Your task to perform on an android device: manage bookmarks in the chrome app Image 0: 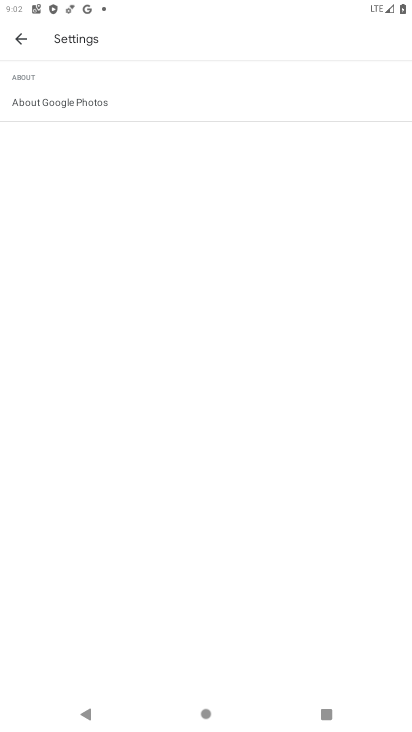
Step 0: press home button
Your task to perform on an android device: manage bookmarks in the chrome app Image 1: 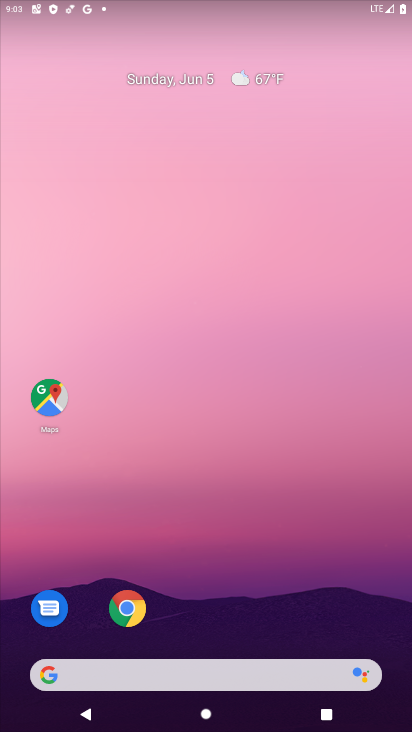
Step 1: click (120, 608)
Your task to perform on an android device: manage bookmarks in the chrome app Image 2: 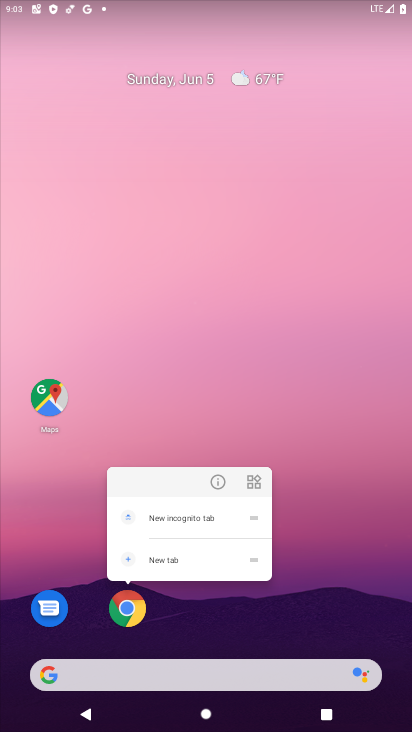
Step 2: click (135, 618)
Your task to perform on an android device: manage bookmarks in the chrome app Image 3: 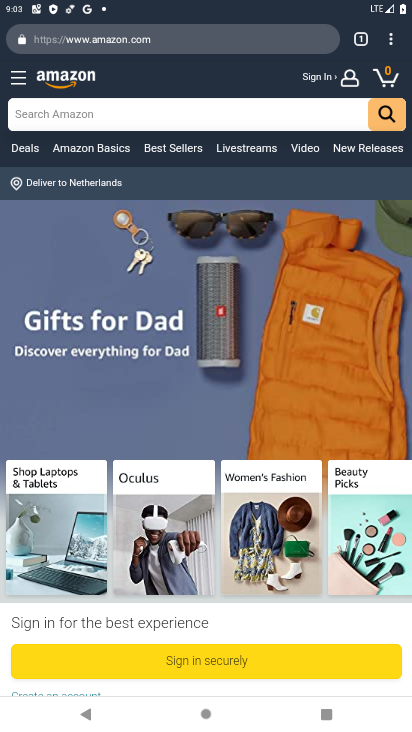
Step 3: click (355, 48)
Your task to perform on an android device: manage bookmarks in the chrome app Image 4: 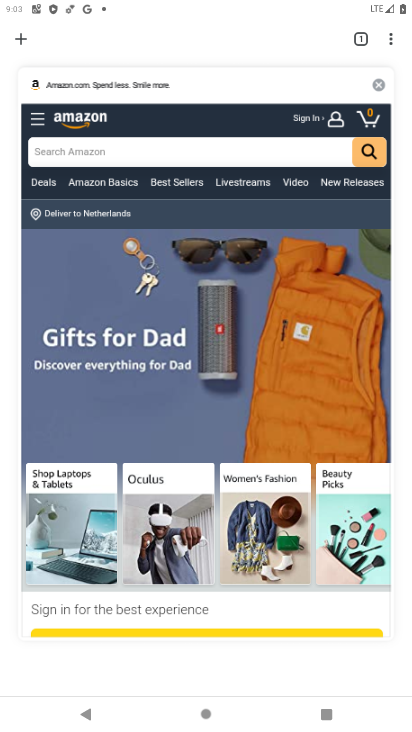
Step 4: click (385, 84)
Your task to perform on an android device: manage bookmarks in the chrome app Image 5: 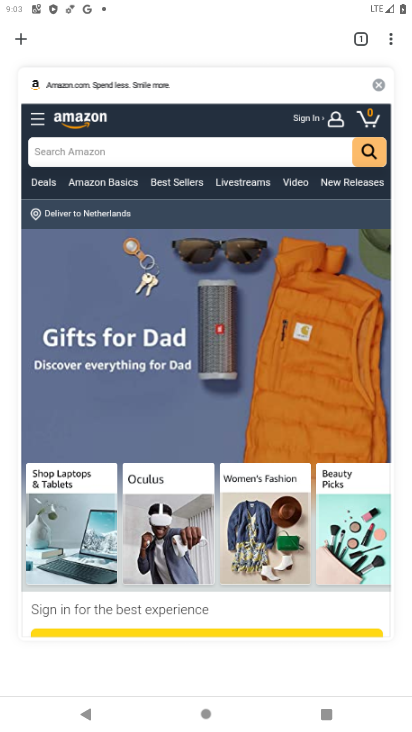
Step 5: click (376, 87)
Your task to perform on an android device: manage bookmarks in the chrome app Image 6: 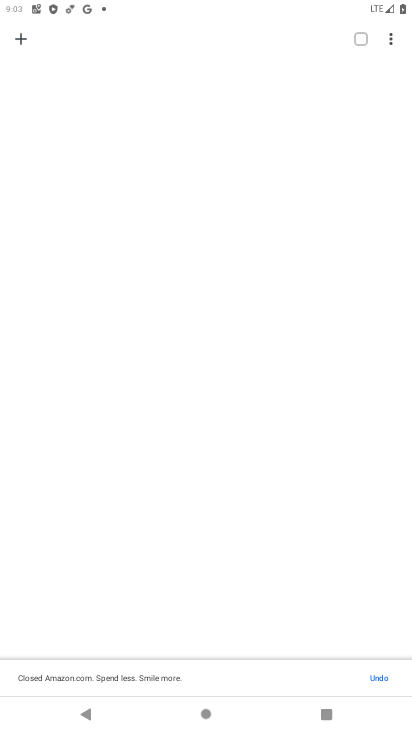
Step 6: click (19, 46)
Your task to perform on an android device: manage bookmarks in the chrome app Image 7: 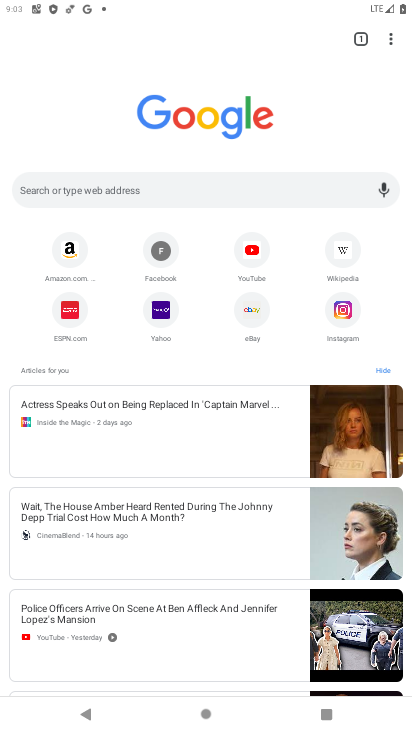
Step 7: click (391, 43)
Your task to perform on an android device: manage bookmarks in the chrome app Image 8: 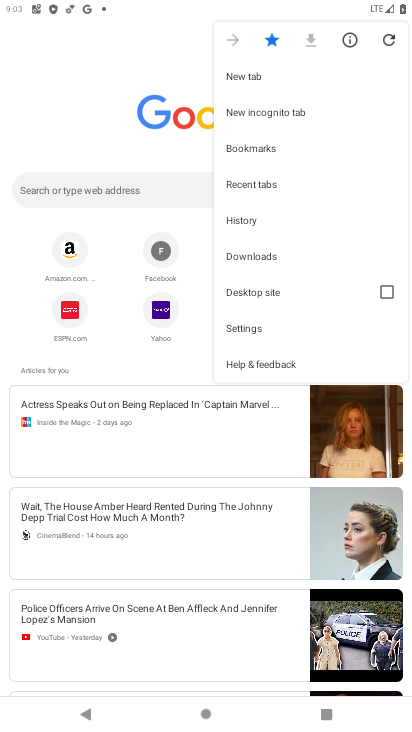
Step 8: click (237, 142)
Your task to perform on an android device: manage bookmarks in the chrome app Image 9: 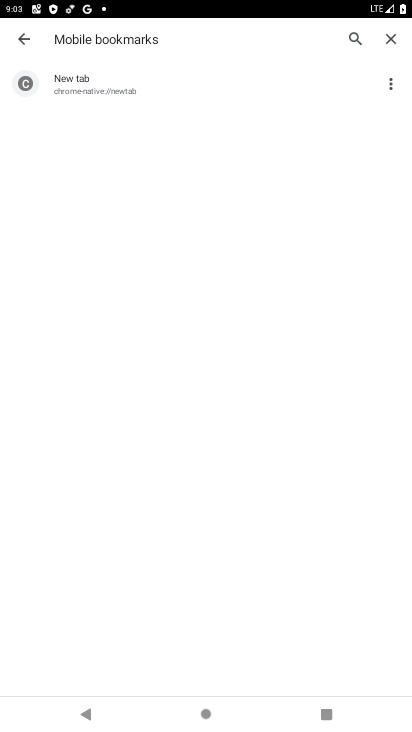
Step 9: click (199, 72)
Your task to perform on an android device: manage bookmarks in the chrome app Image 10: 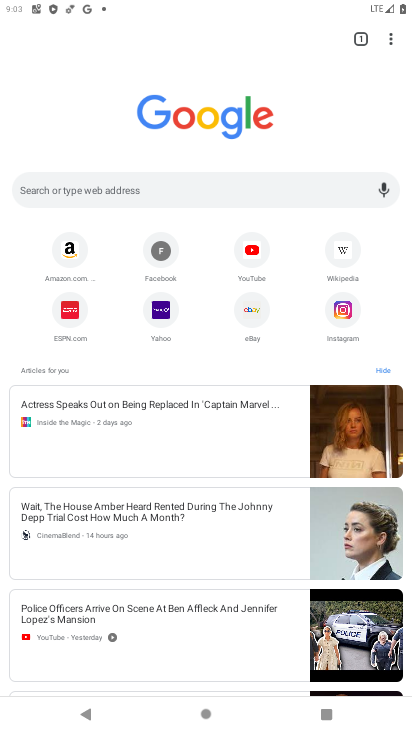
Step 10: task complete